Your task to perform on an android device: Open network settings Image 0: 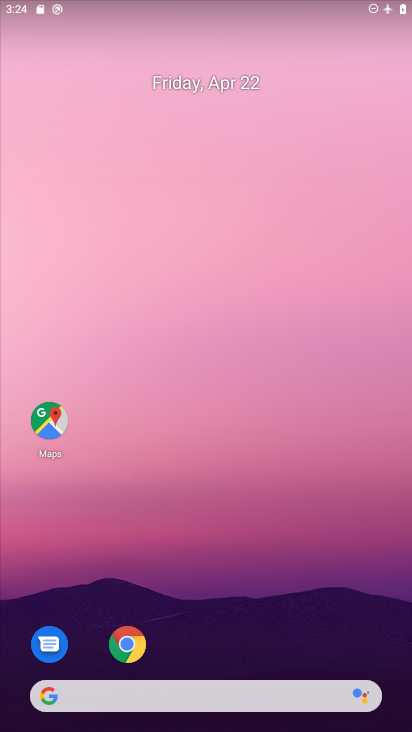
Step 0: drag from (245, 606) to (258, 154)
Your task to perform on an android device: Open network settings Image 1: 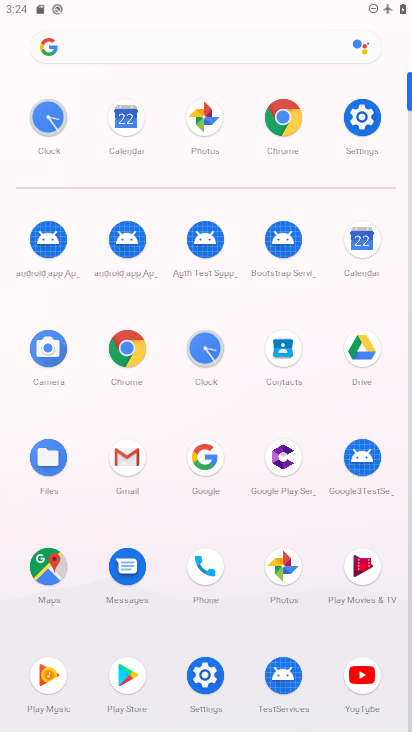
Step 1: click (356, 107)
Your task to perform on an android device: Open network settings Image 2: 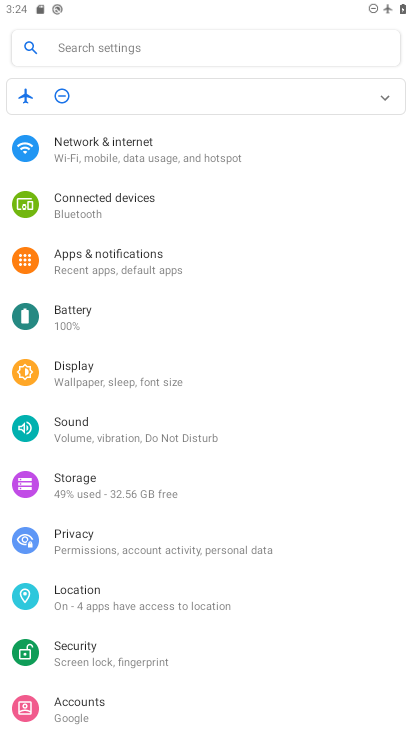
Step 2: click (141, 152)
Your task to perform on an android device: Open network settings Image 3: 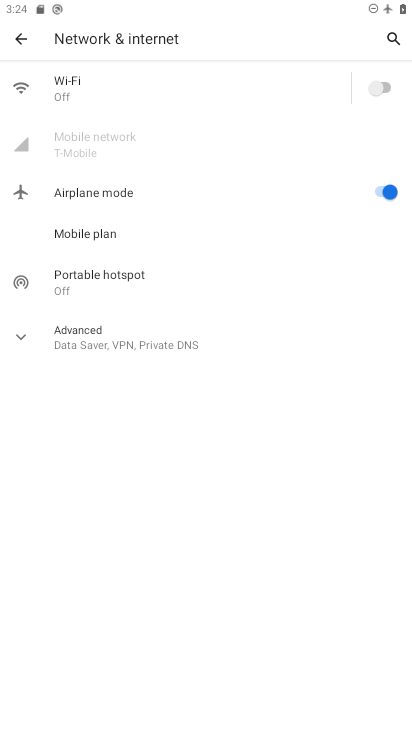
Step 3: task complete